Your task to perform on an android device: open app "Google Keep" (install if not already installed) Image 0: 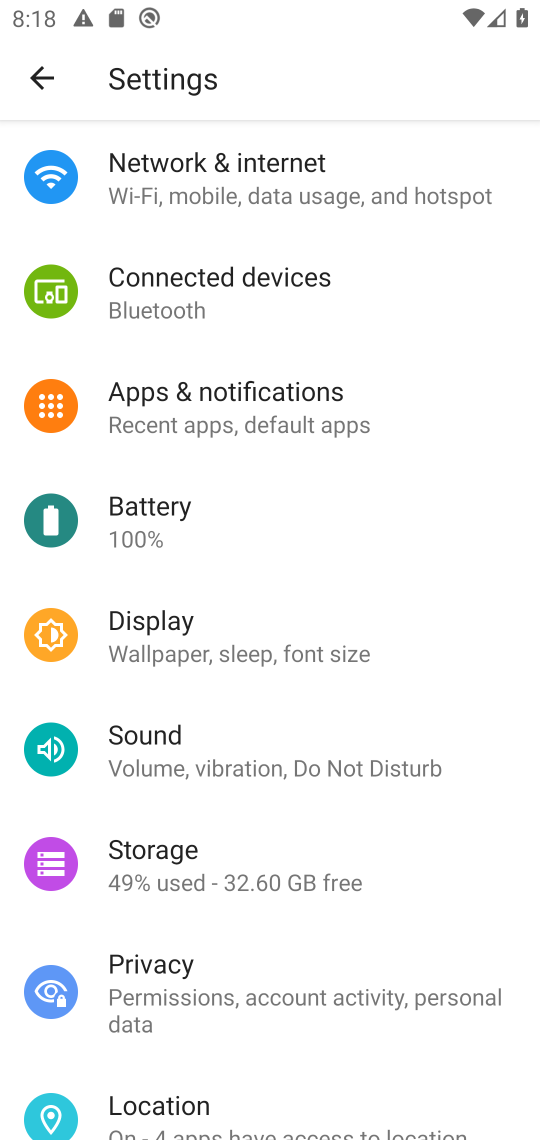
Step 0: drag from (298, 590) to (257, 1031)
Your task to perform on an android device: open app "Google Keep" (install if not already installed) Image 1: 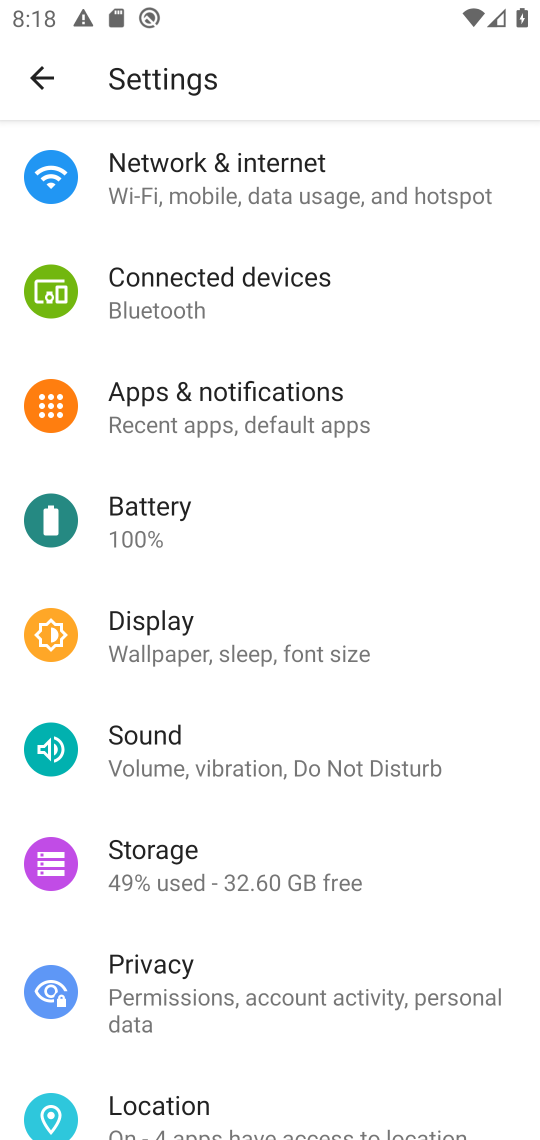
Step 1: drag from (248, 898) to (249, 432)
Your task to perform on an android device: open app "Google Keep" (install if not already installed) Image 2: 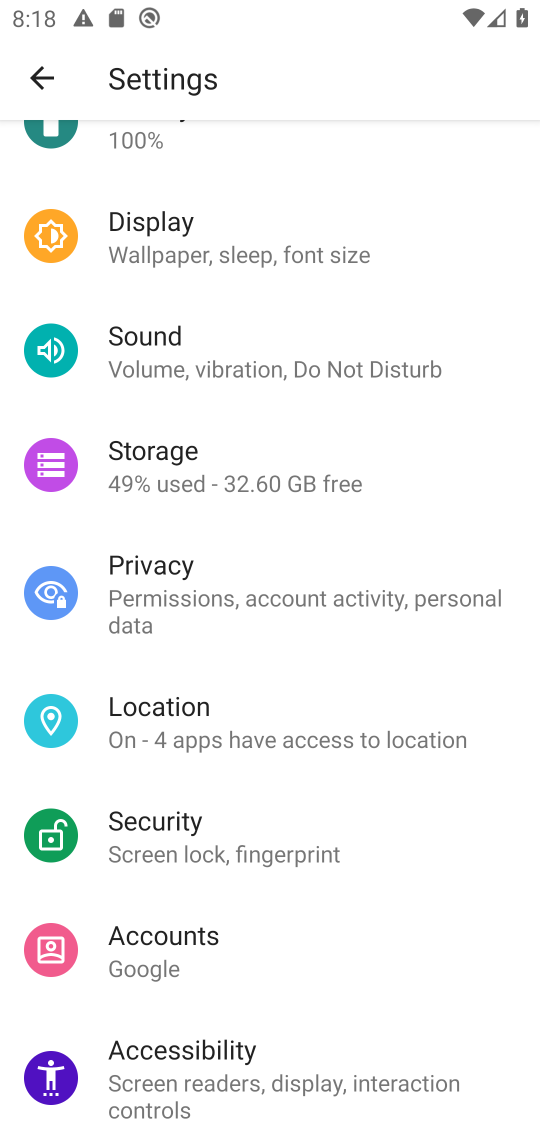
Step 2: drag from (281, 929) to (283, 471)
Your task to perform on an android device: open app "Google Keep" (install if not already installed) Image 3: 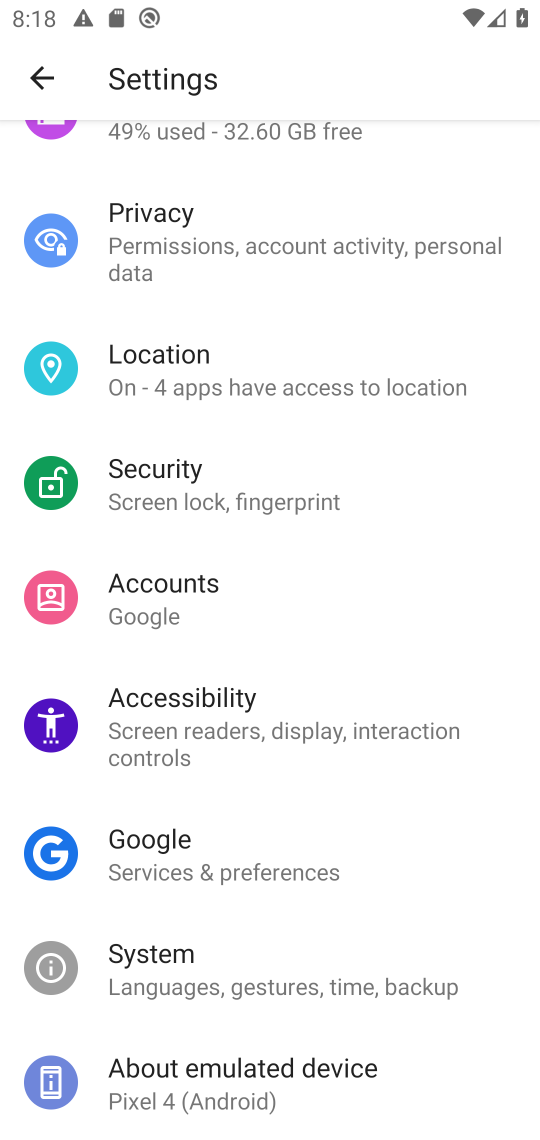
Step 3: drag from (176, 831) to (180, 511)
Your task to perform on an android device: open app "Google Keep" (install if not already installed) Image 4: 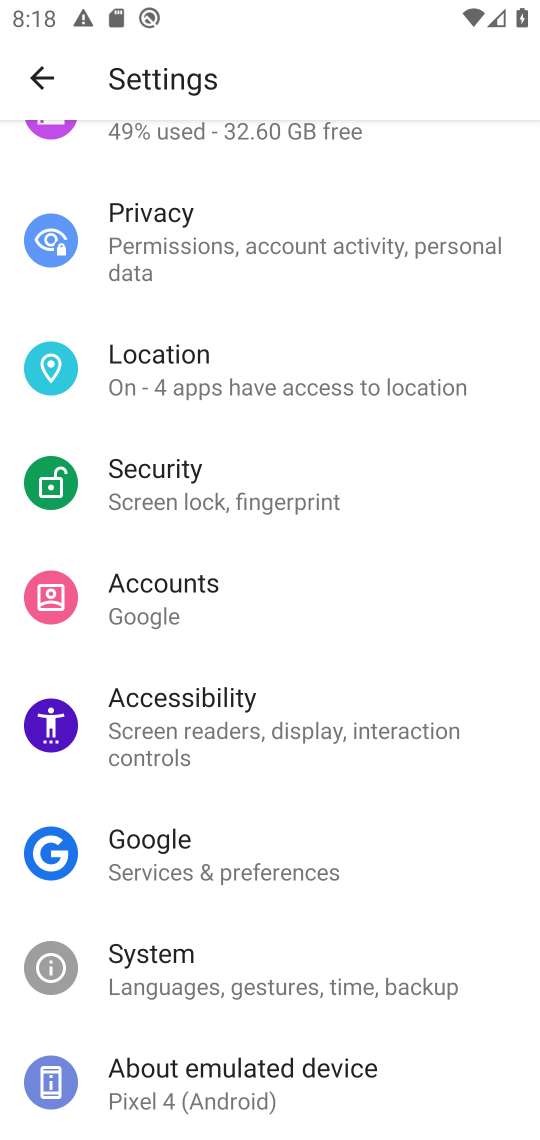
Step 4: press home button
Your task to perform on an android device: open app "Google Keep" (install if not already installed) Image 5: 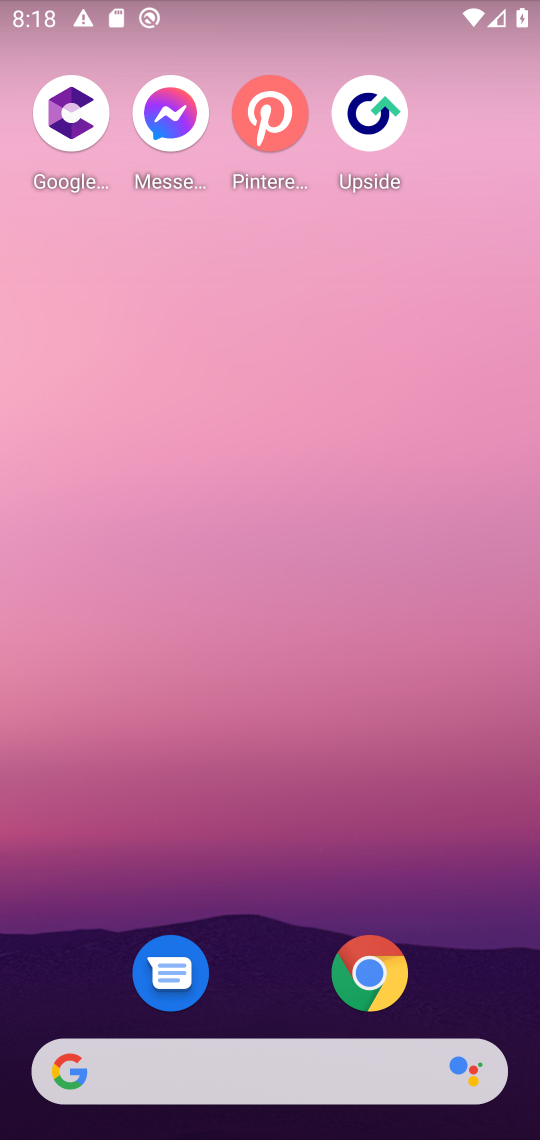
Step 5: drag from (223, 1107) to (287, 214)
Your task to perform on an android device: open app "Google Keep" (install if not already installed) Image 6: 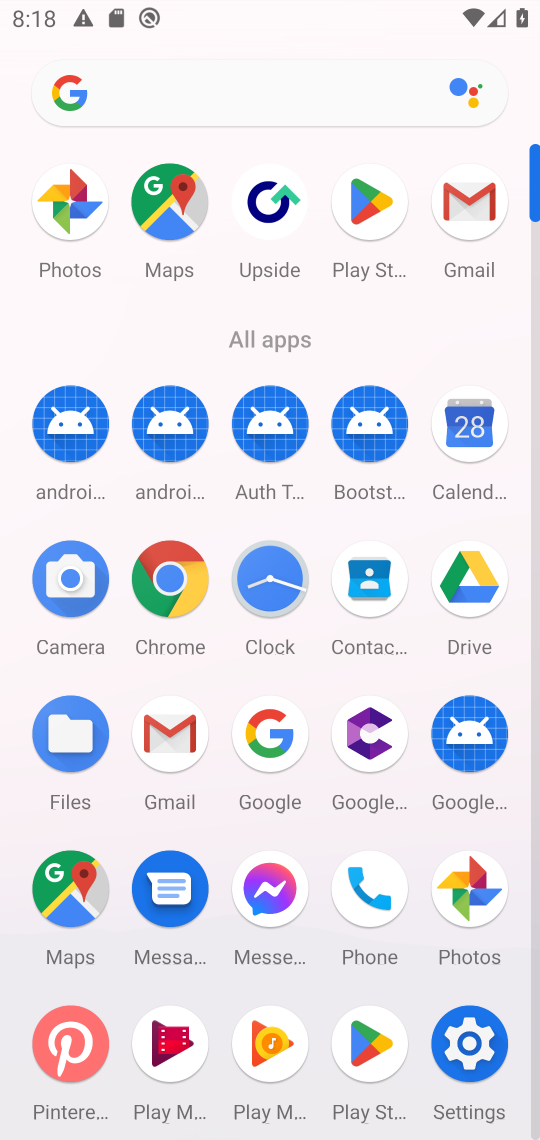
Step 6: click (367, 194)
Your task to perform on an android device: open app "Google Keep" (install if not already installed) Image 7: 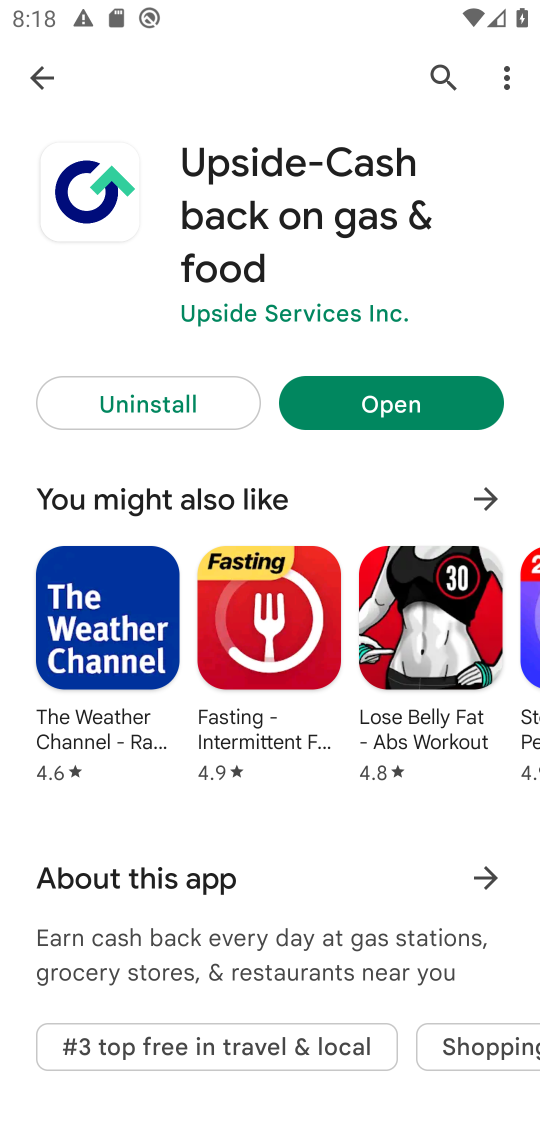
Step 7: click (49, 79)
Your task to perform on an android device: open app "Google Keep" (install if not already installed) Image 8: 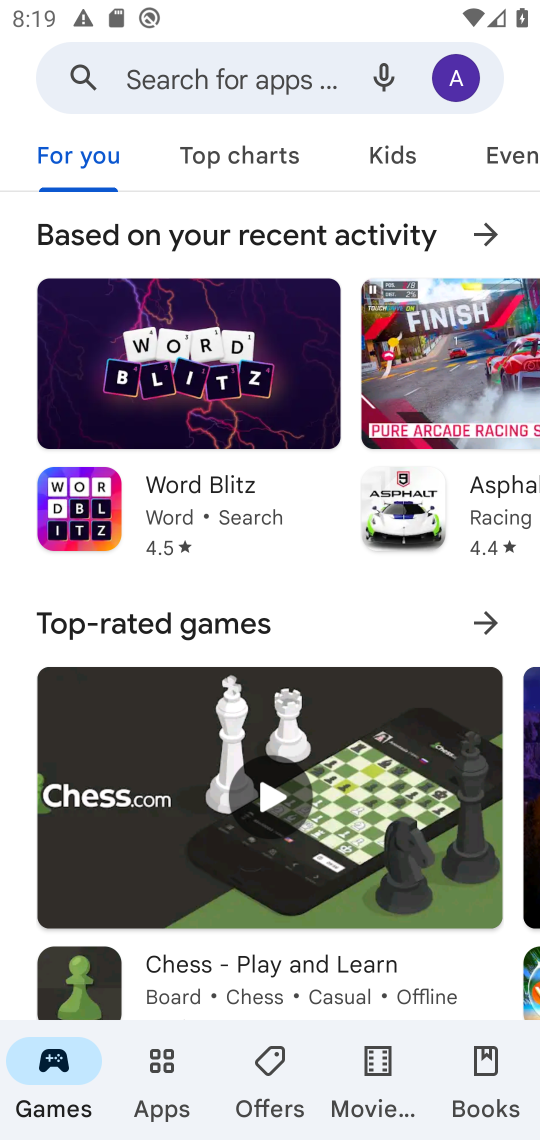
Step 8: click (146, 80)
Your task to perform on an android device: open app "Google Keep" (install if not already installed) Image 9: 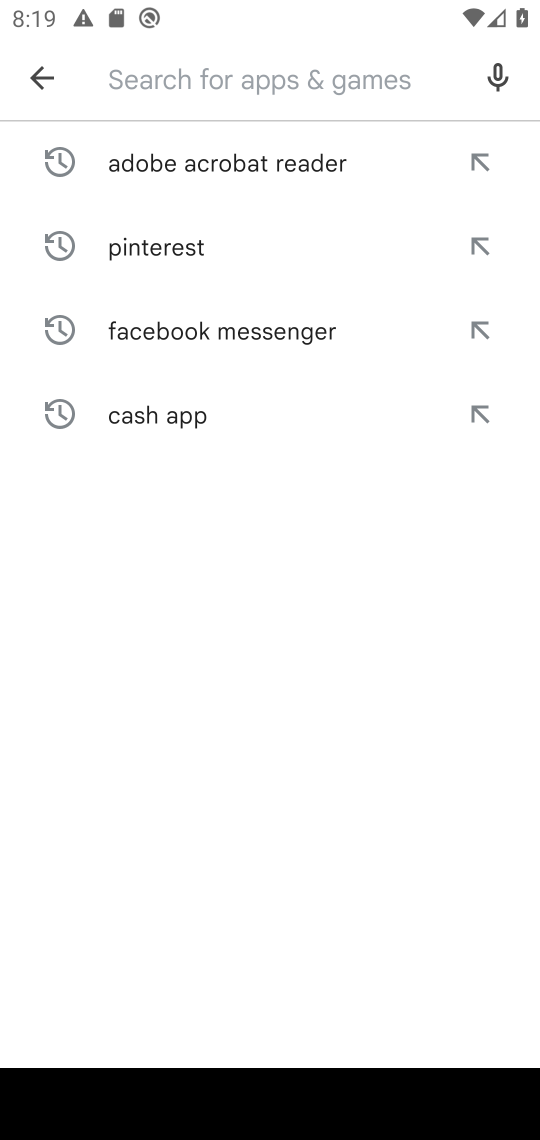
Step 9: type "Google Keep"
Your task to perform on an android device: open app "Google Keep" (install if not already installed) Image 10: 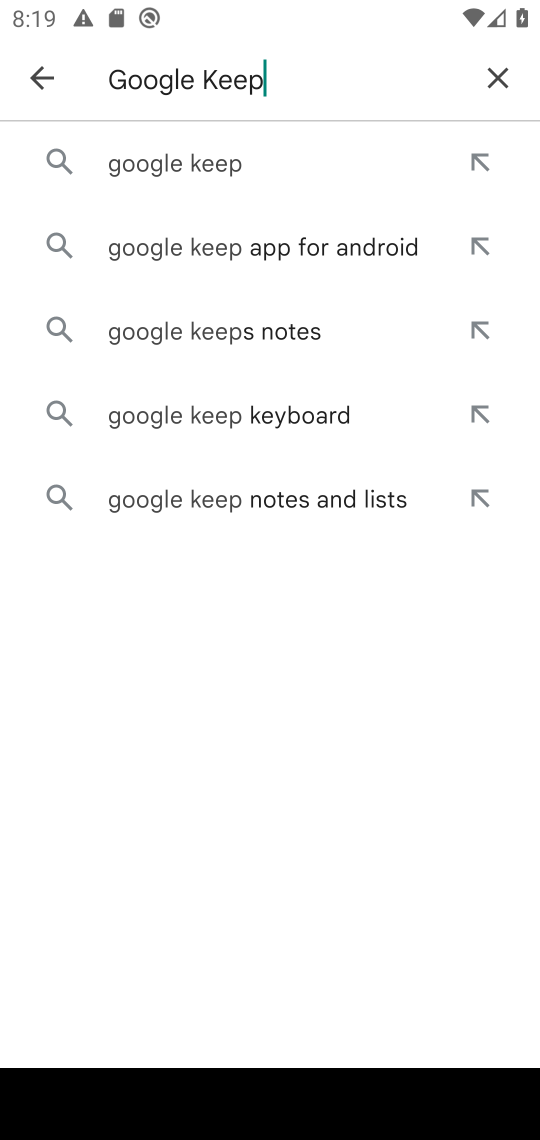
Step 10: click (274, 157)
Your task to perform on an android device: open app "Google Keep" (install if not already installed) Image 11: 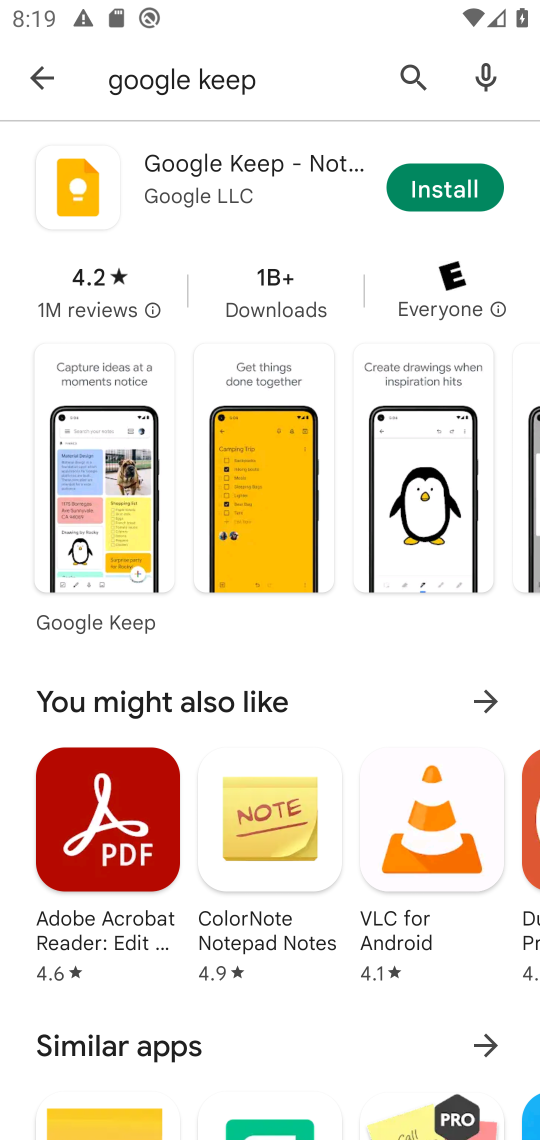
Step 11: click (444, 206)
Your task to perform on an android device: open app "Google Keep" (install if not already installed) Image 12: 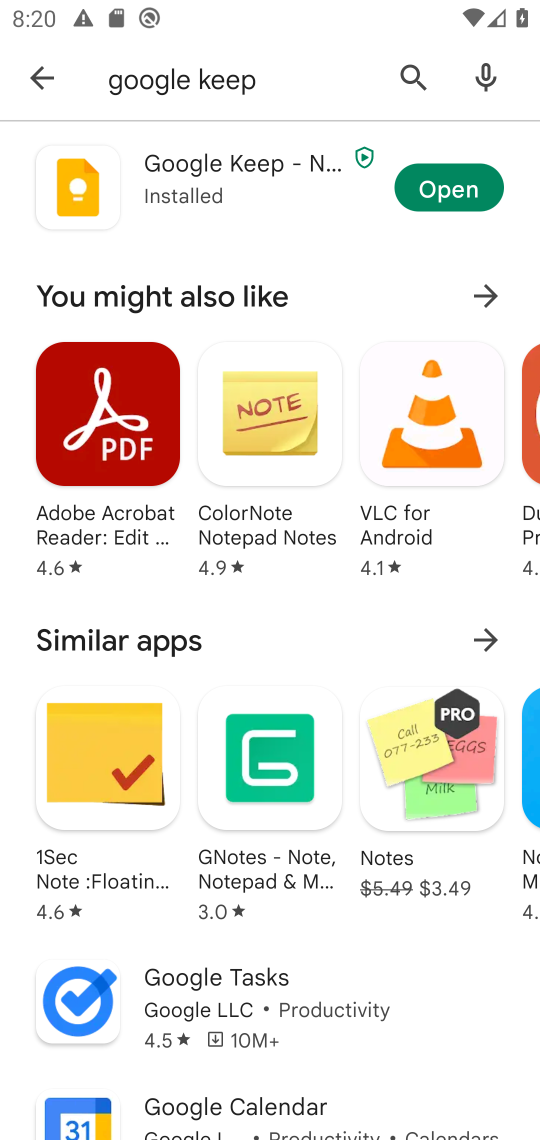
Step 12: click (499, 189)
Your task to perform on an android device: open app "Google Keep" (install if not already installed) Image 13: 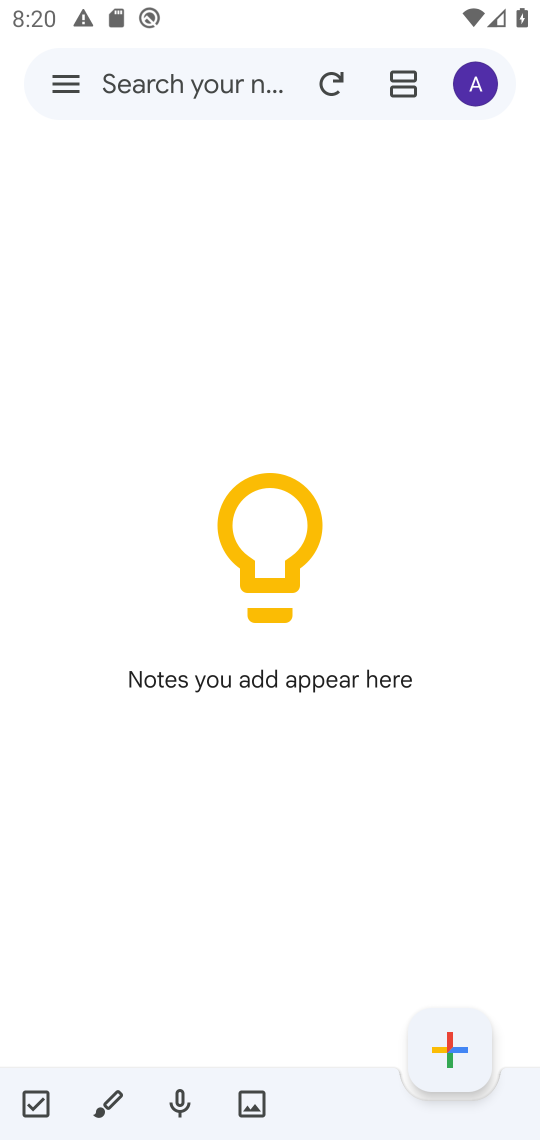
Step 13: task complete